Your task to perform on an android device: Go to privacy settings Image 0: 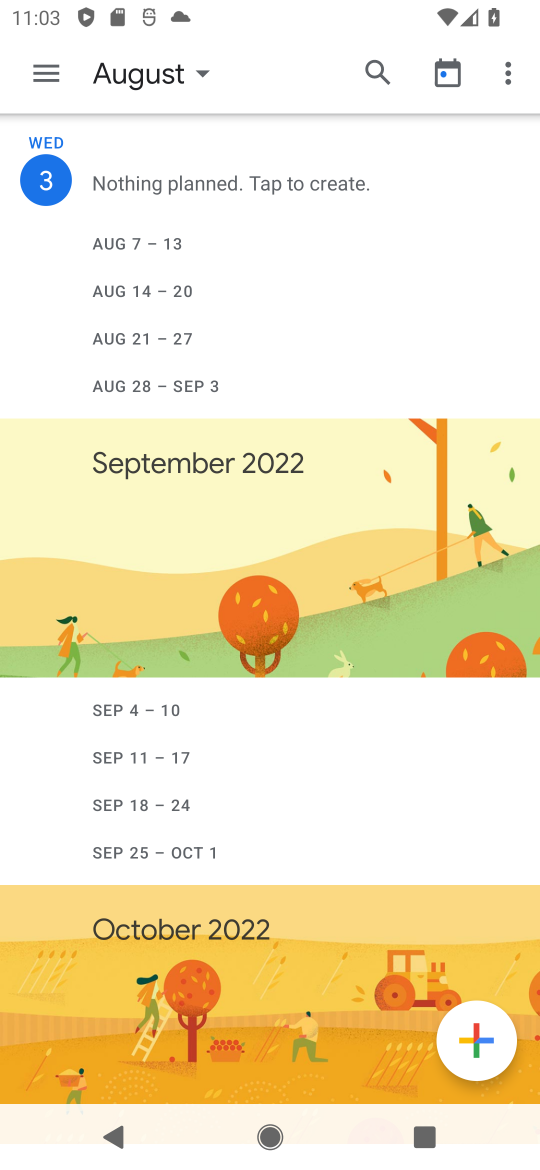
Step 0: press home button
Your task to perform on an android device: Go to privacy settings Image 1: 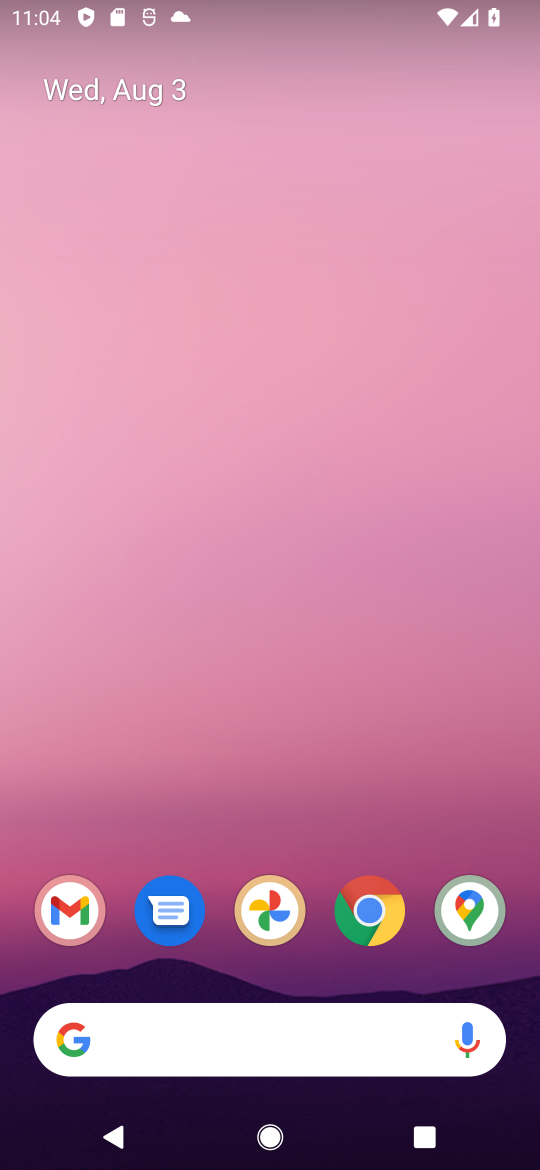
Step 1: drag from (316, 968) to (384, 0)
Your task to perform on an android device: Go to privacy settings Image 2: 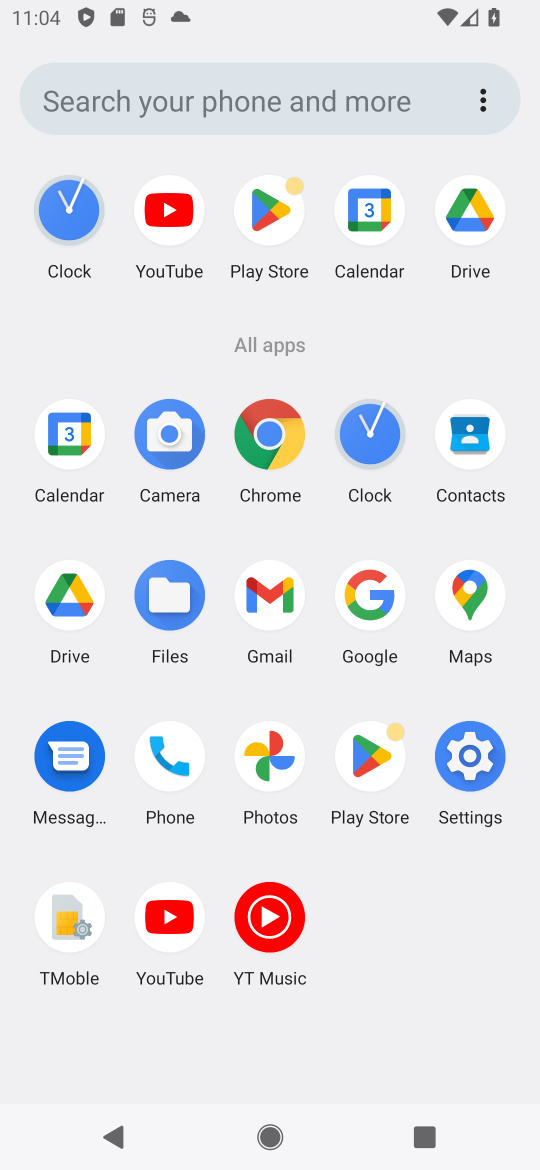
Step 2: click (465, 742)
Your task to perform on an android device: Go to privacy settings Image 3: 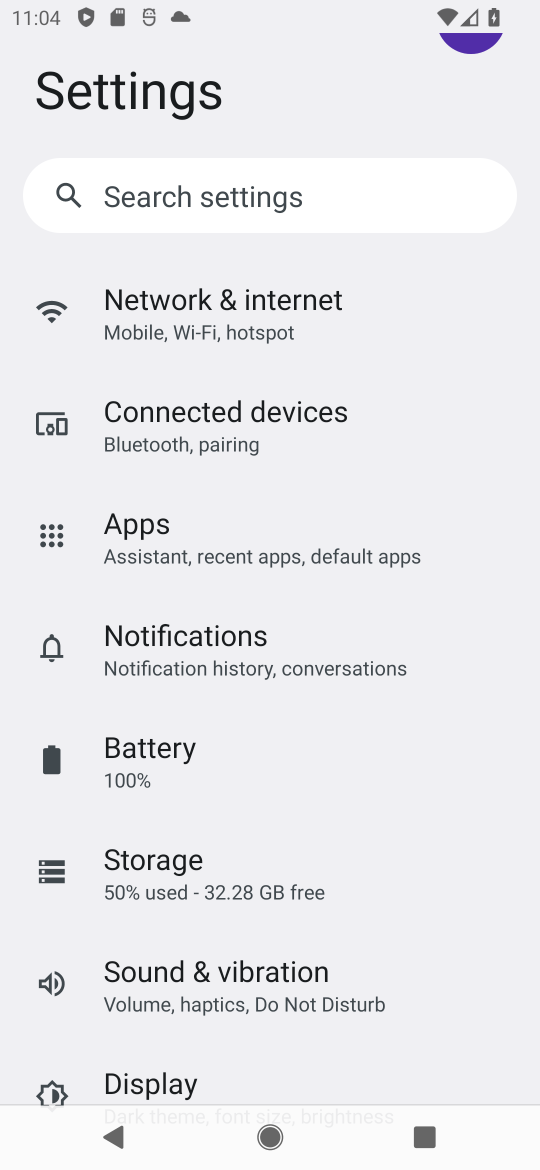
Step 3: drag from (244, 1006) to (273, 440)
Your task to perform on an android device: Go to privacy settings Image 4: 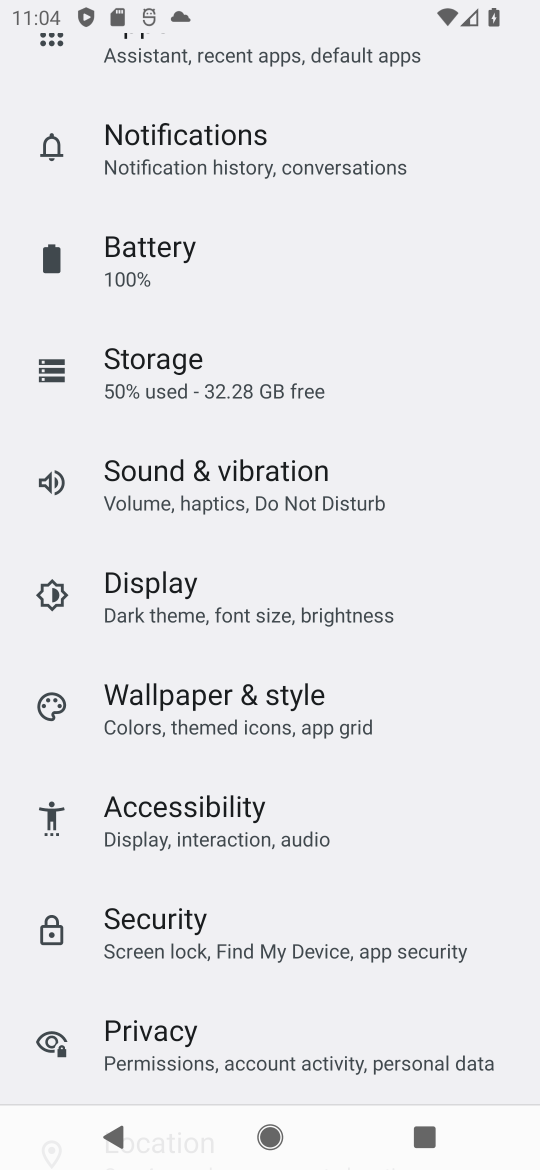
Step 4: click (229, 1029)
Your task to perform on an android device: Go to privacy settings Image 5: 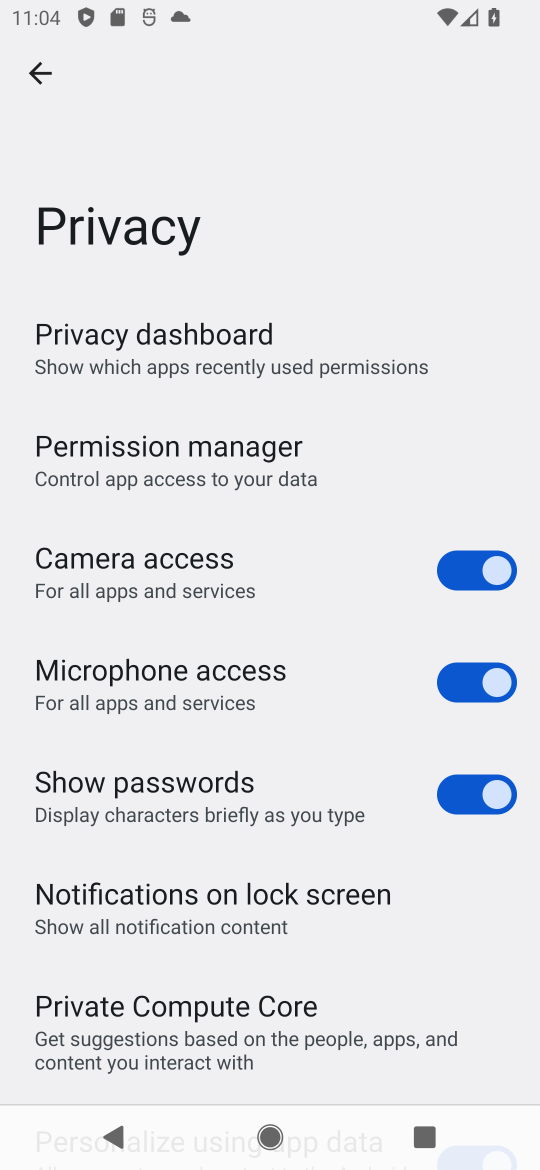
Step 5: task complete